Your task to perform on an android device: install app "Pinterest" Image 0: 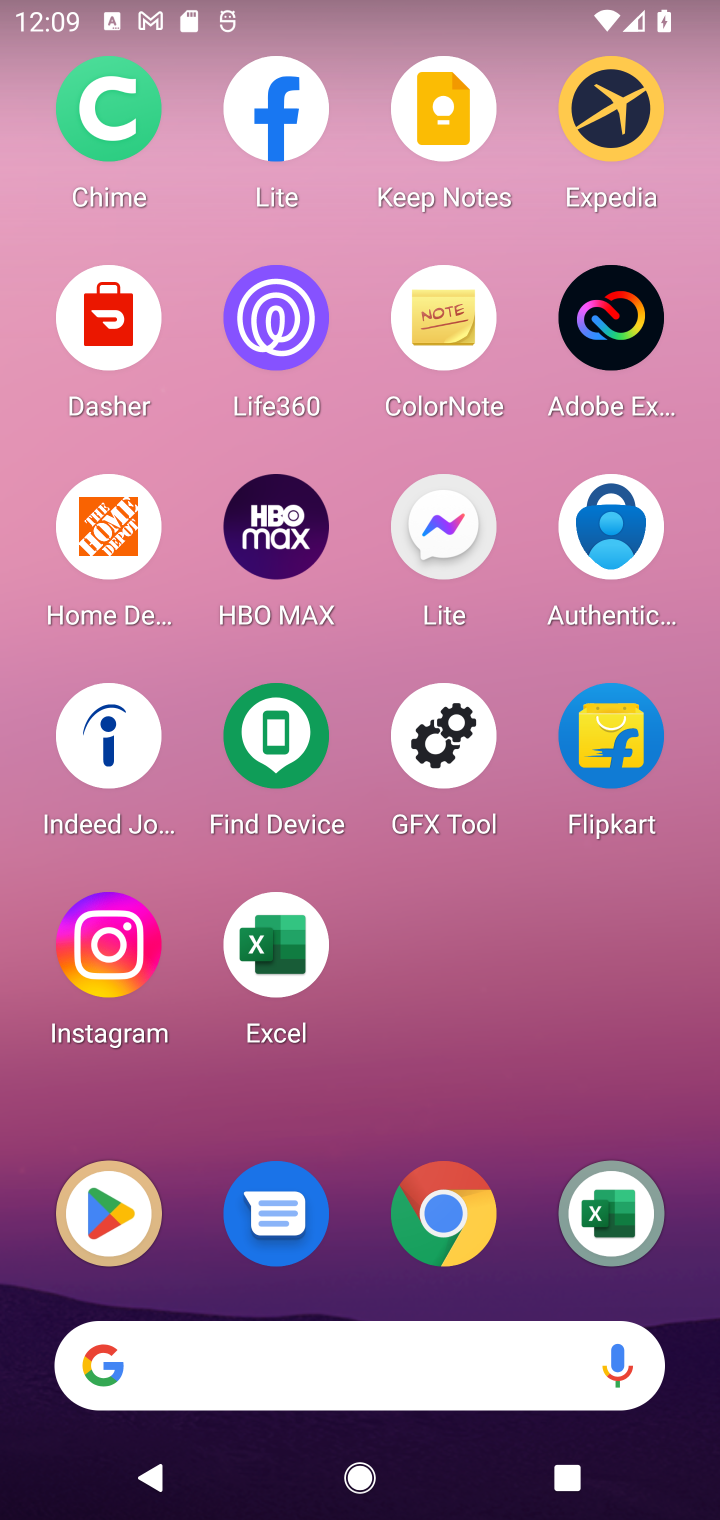
Step 0: click (97, 1220)
Your task to perform on an android device: install app "Pinterest" Image 1: 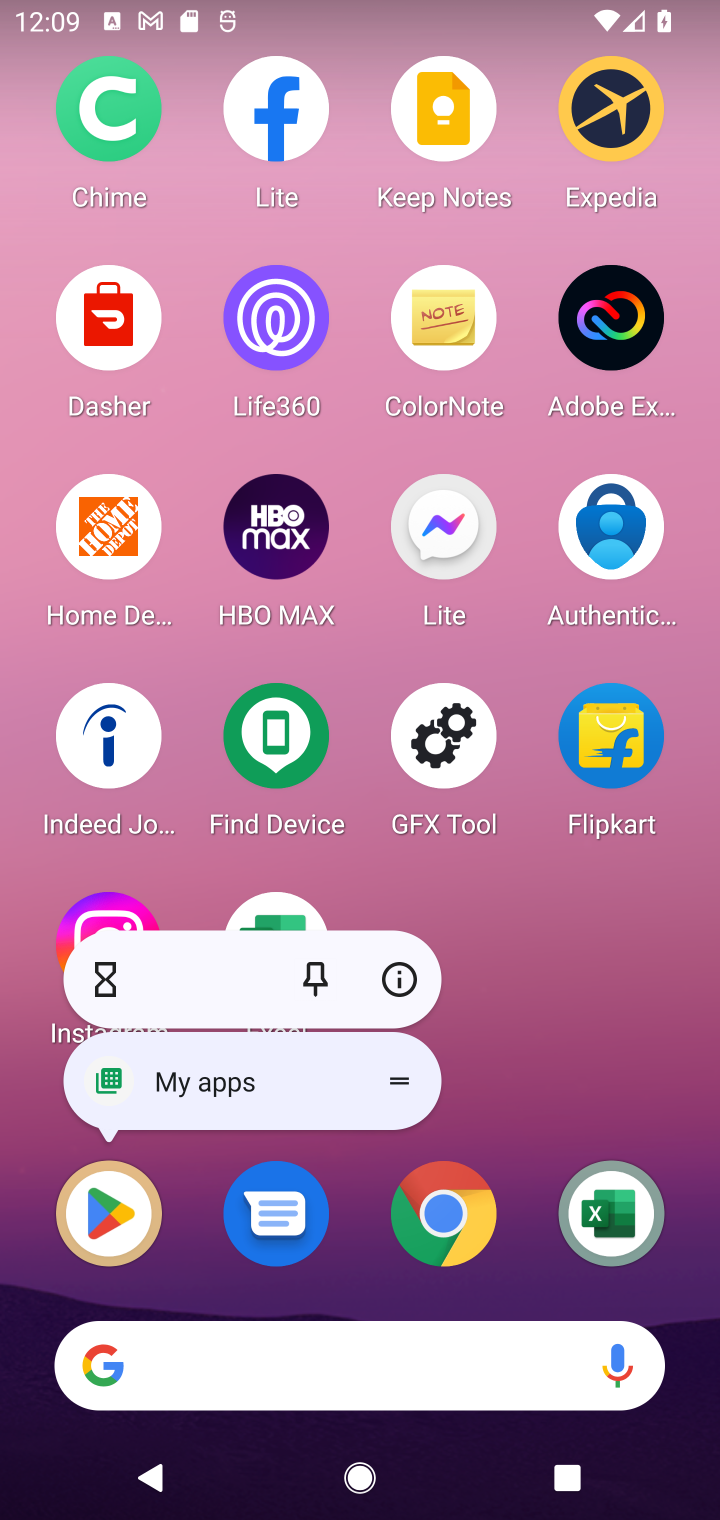
Step 1: click (99, 1232)
Your task to perform on an android device: install app "Pinterest" Image 2: 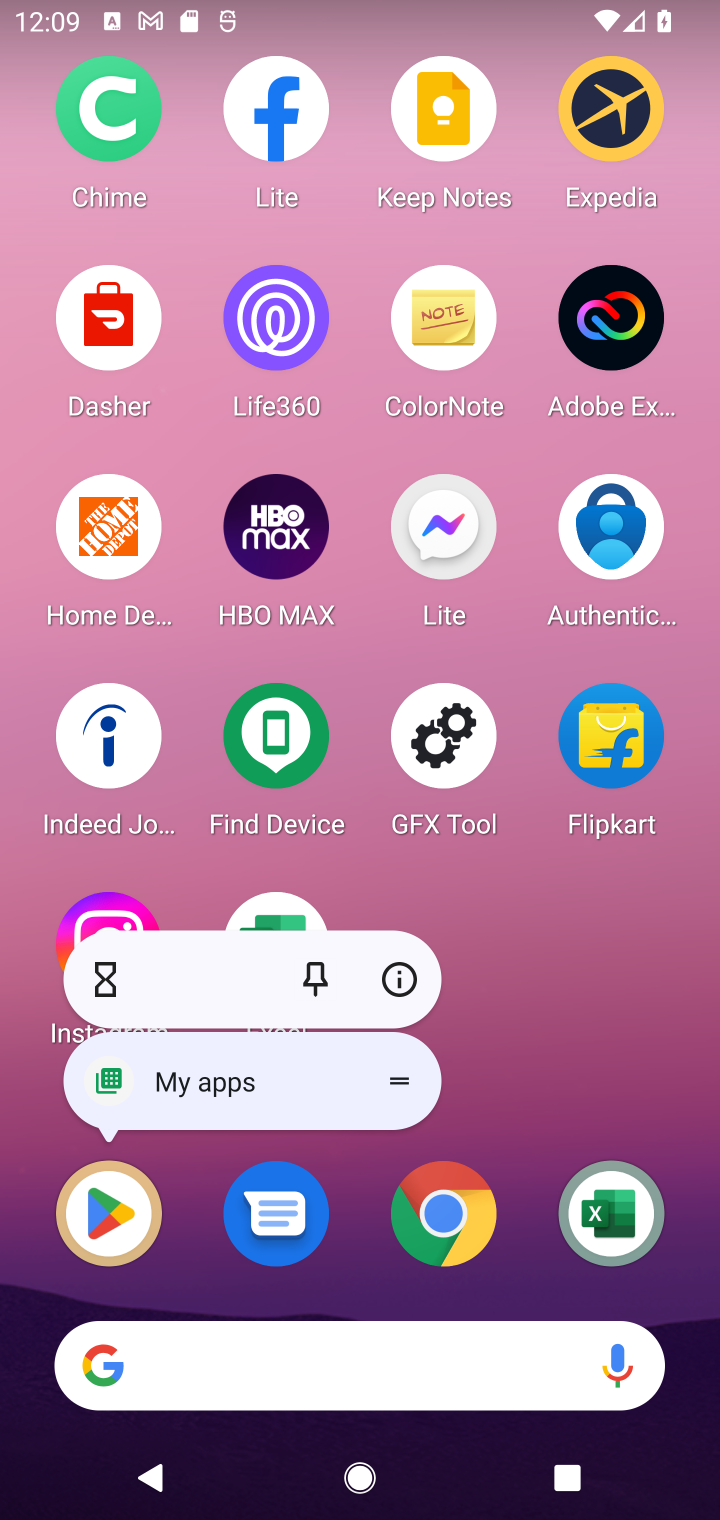
Step 2: click (101, 1261)
Your task to perform on an android device: install app "Pinterest" Image 3: 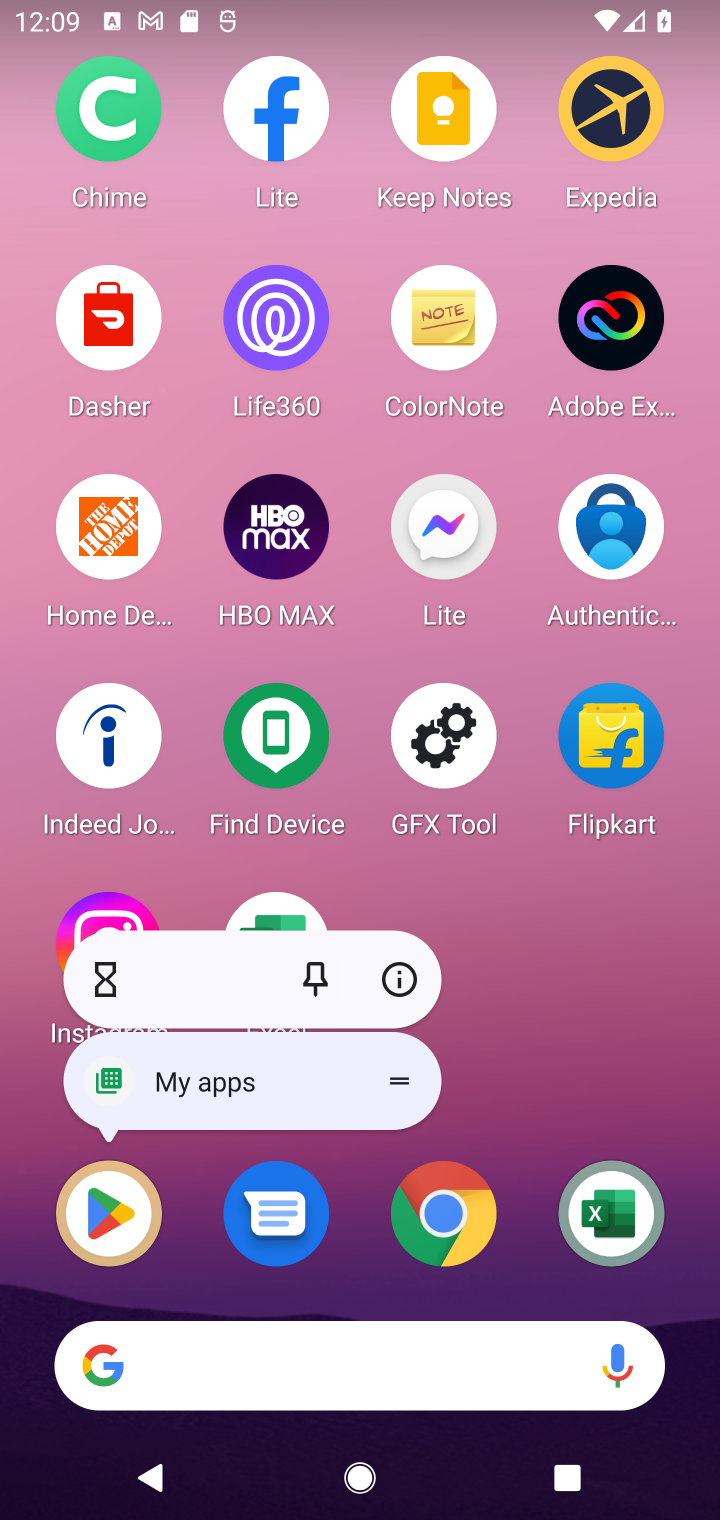
Step 3: click (101, 1249)
Your task to perform on an android device: install app "Pinterest" Image 4: 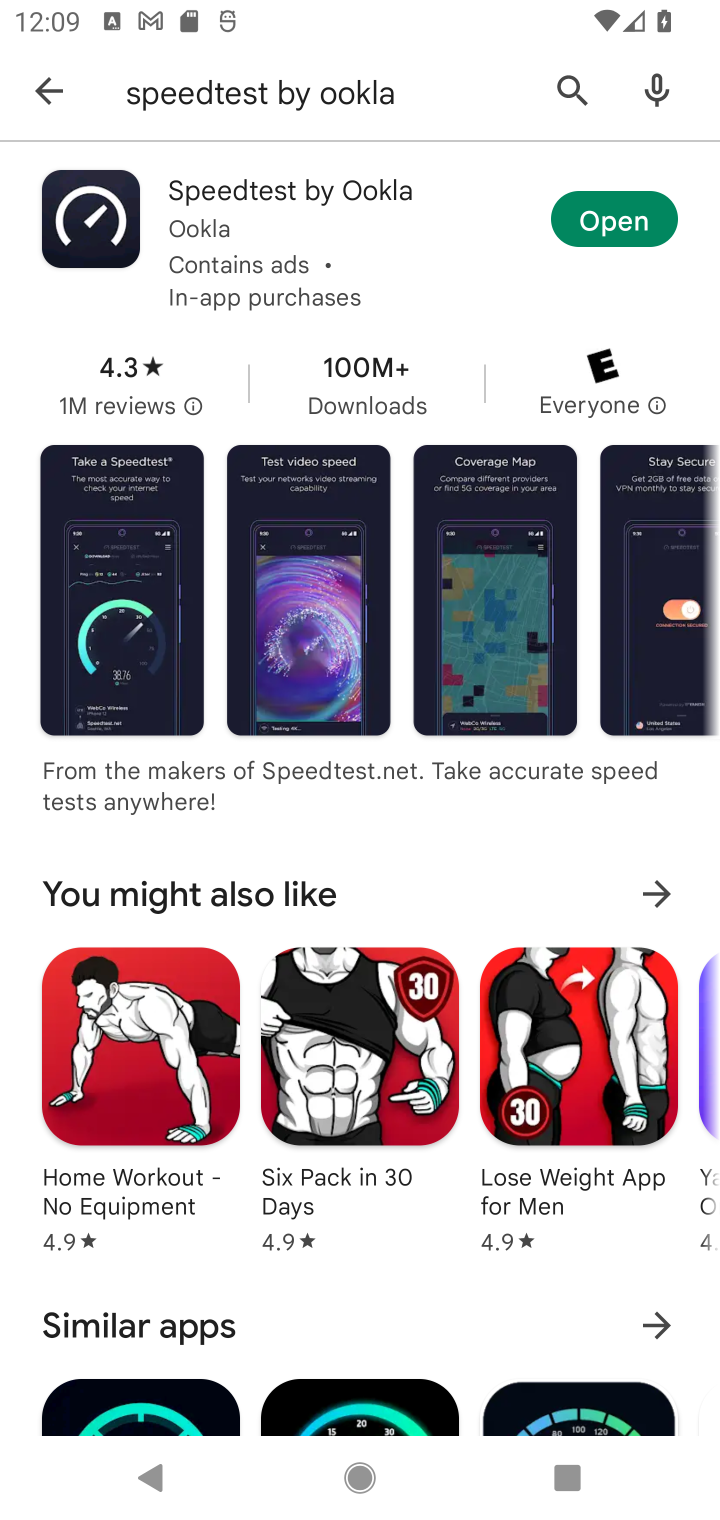
Step 4: click (46, 95)
Your task to perform on an android device: install app "Pinterest" Image 5: 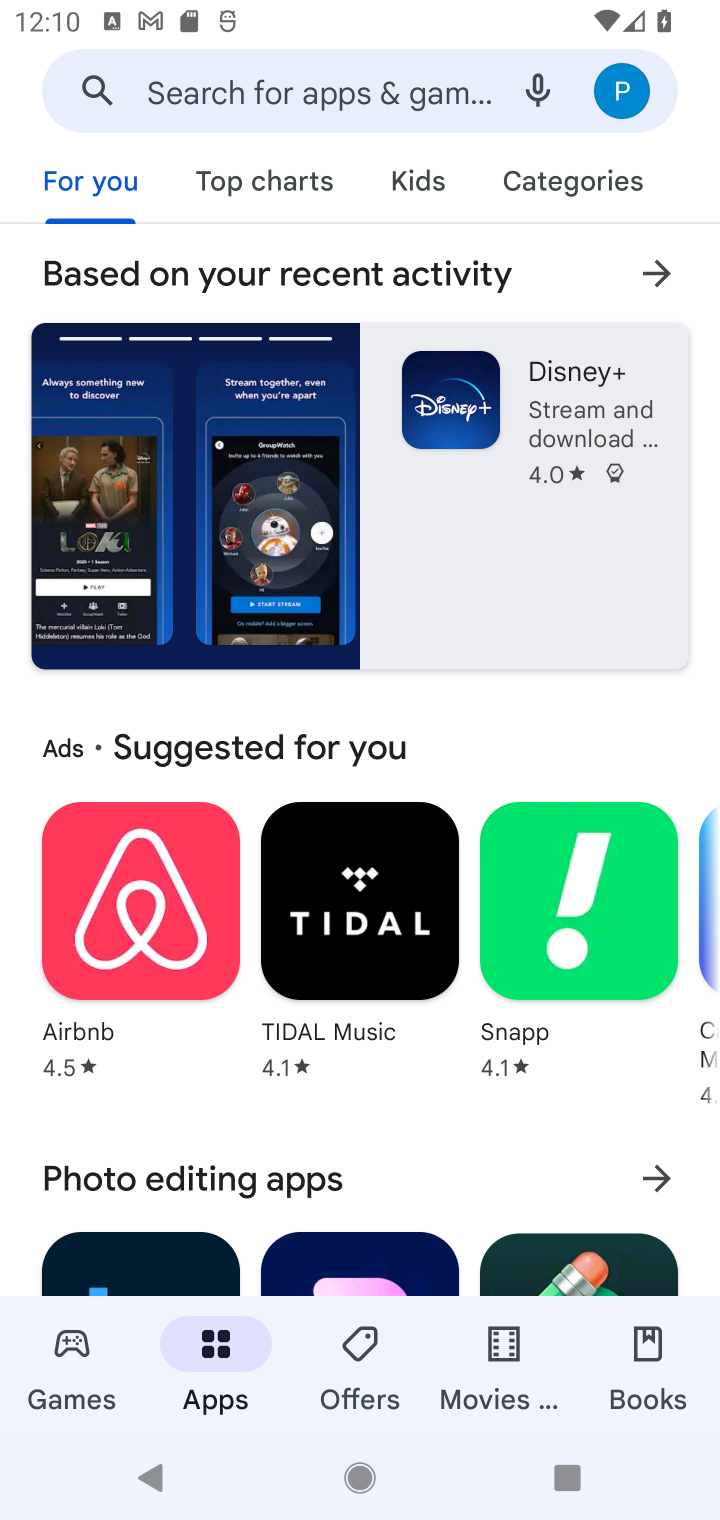
Step 5: click (345, 101)
Your task to perform on an android device: install app "Pinterest" Image 6: 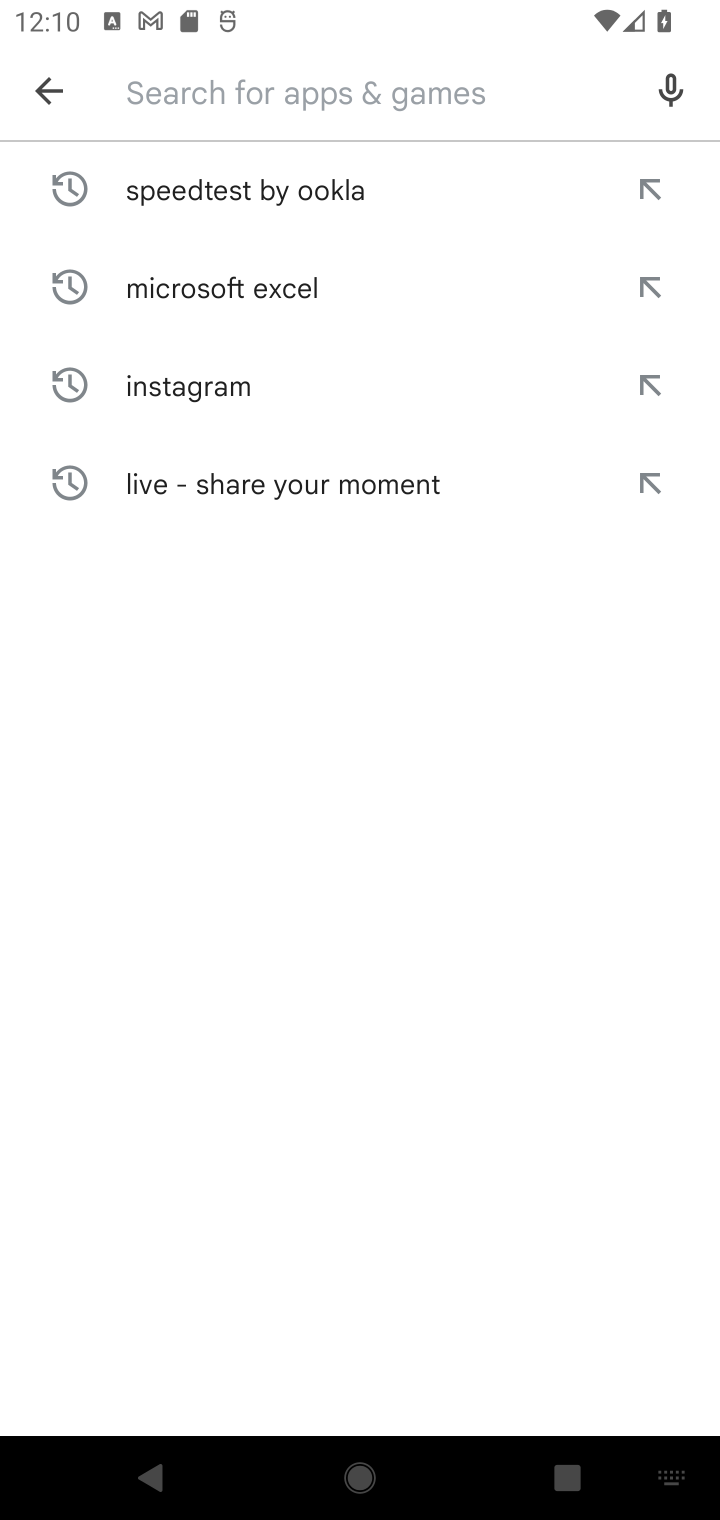
Step 6: type "Pinterest"
Your task to perform on an android device: install app "Pinterest" Image 7: 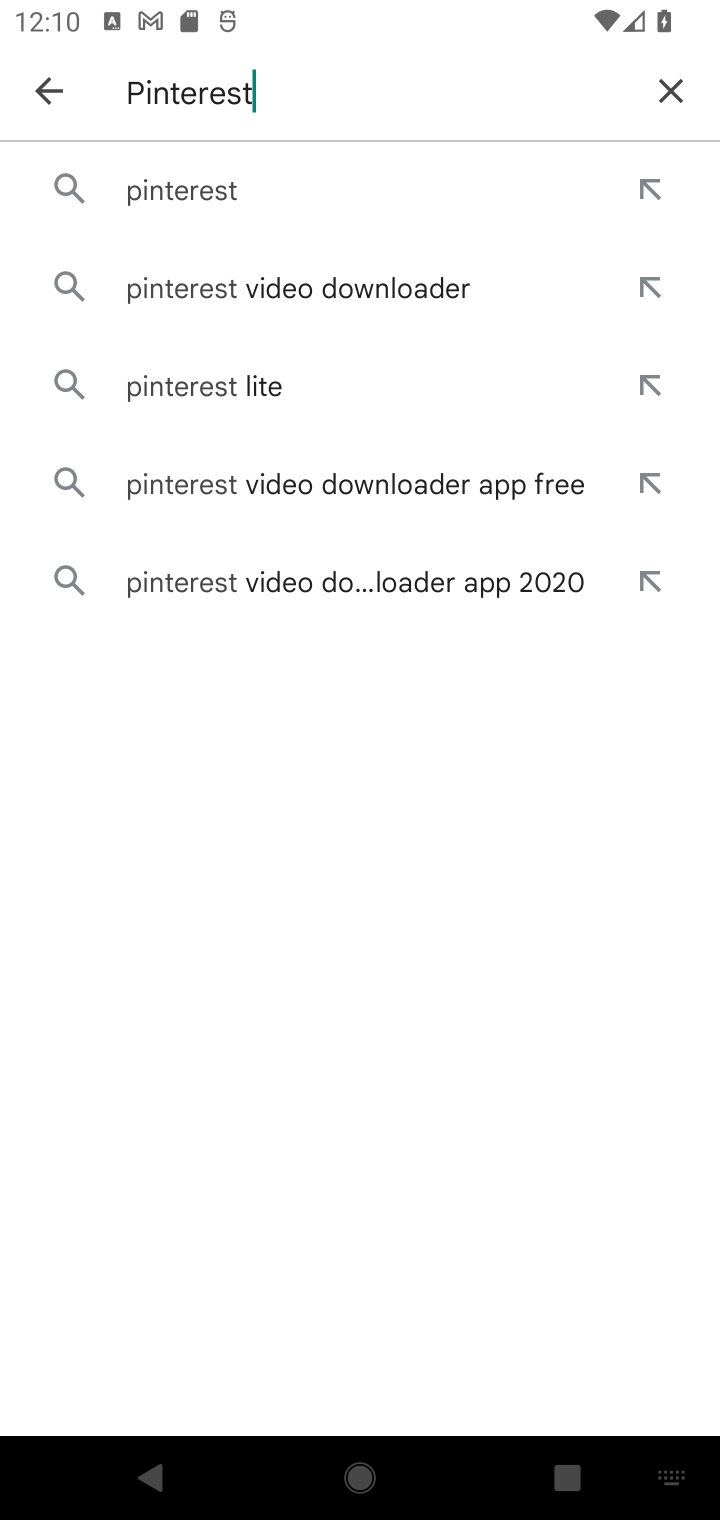
Step 7: click (160, 178)
Your task to perform on an android device: install app "Pinterest" Image 8: 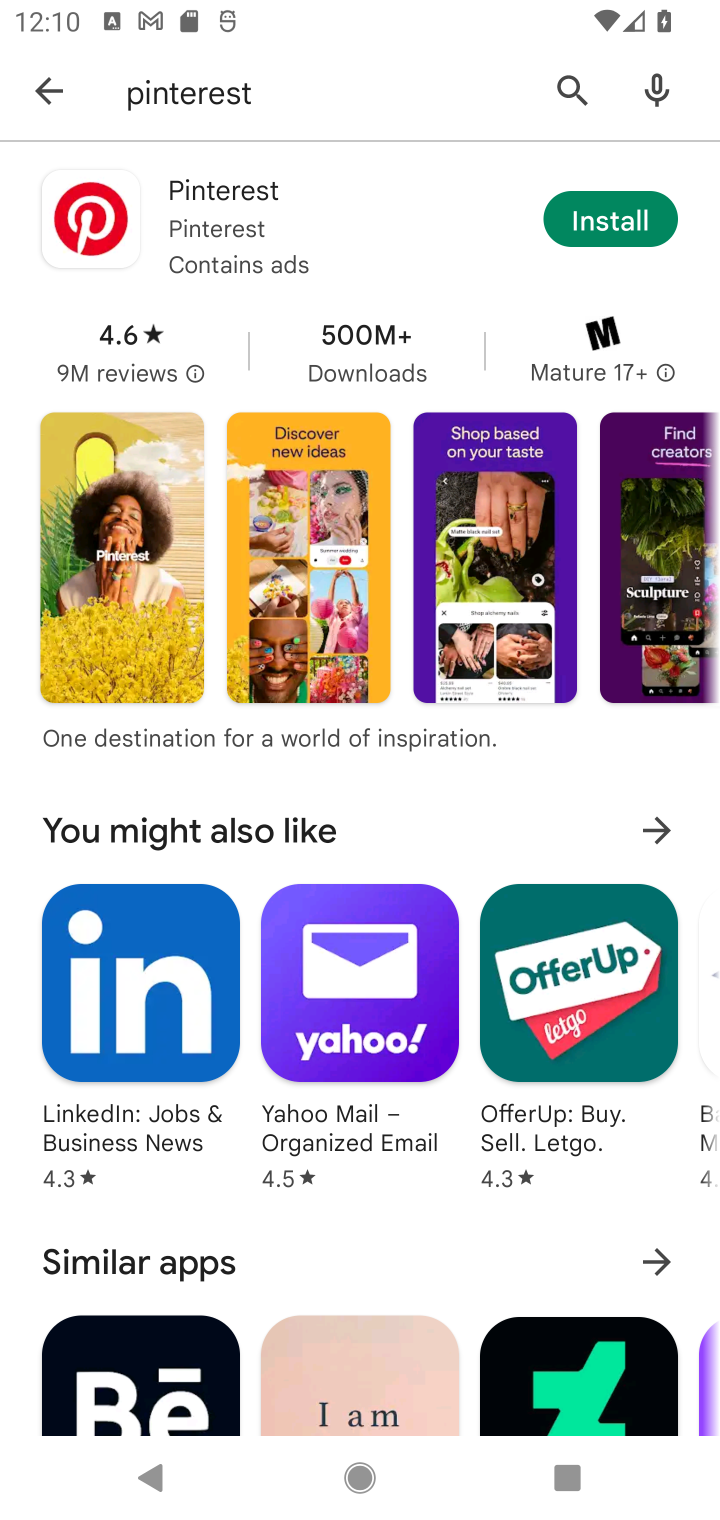
Step 8: click (610, 213)
Your task to perform on an android device: install app "Pinterest" Image 9: 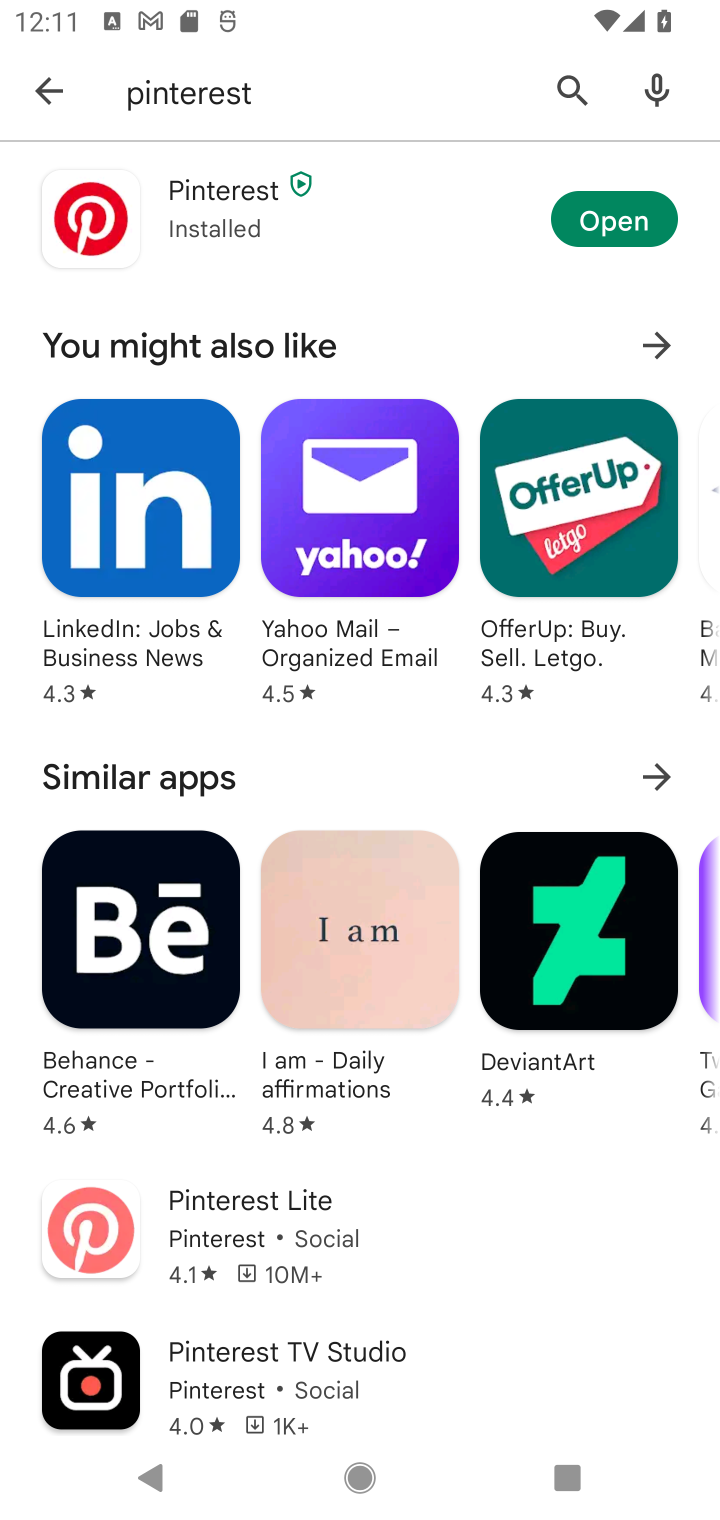
Step 9: click (586, 199)
Your task to perform on an android device: install app "Pinterest" Image 10: 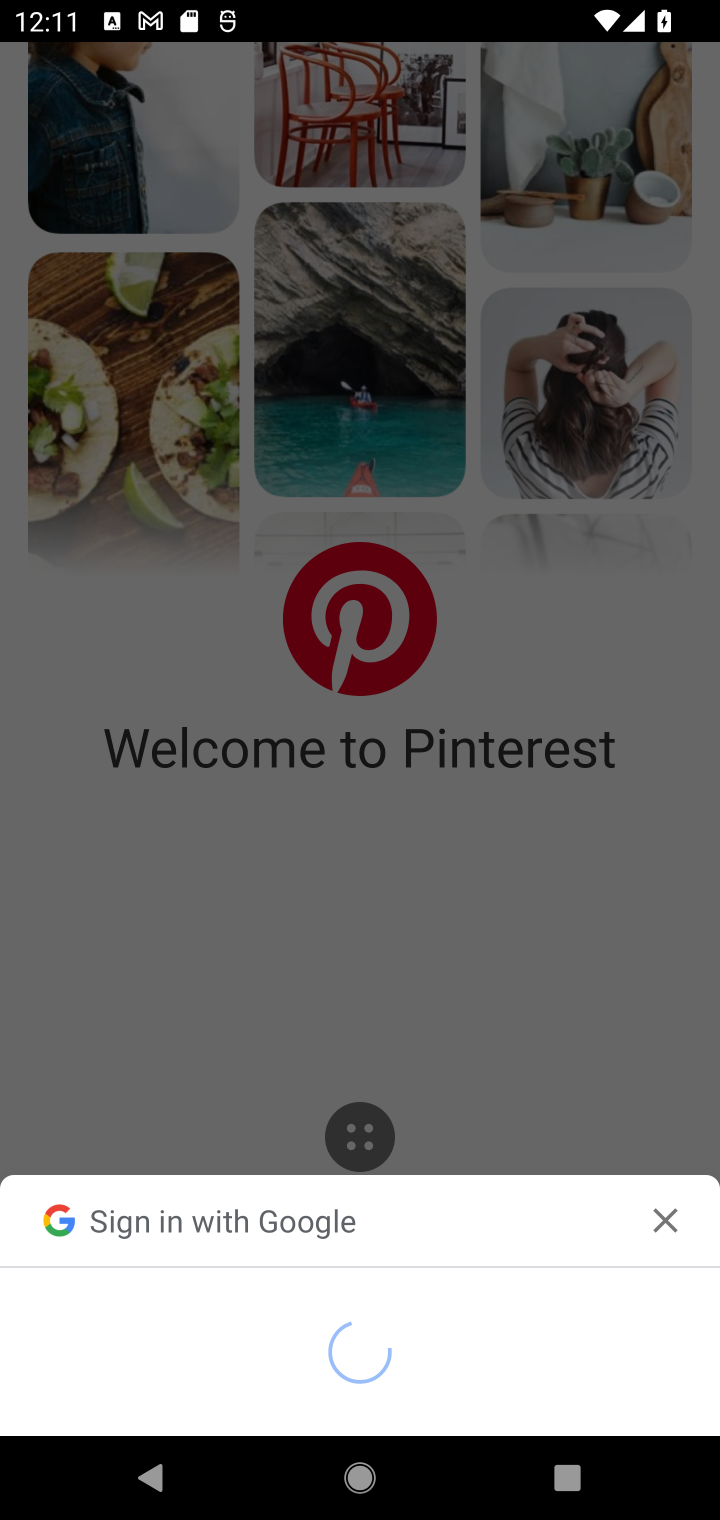
Step 10: task complete